Your task to perform on an android device: Go to internet settings Image 0: 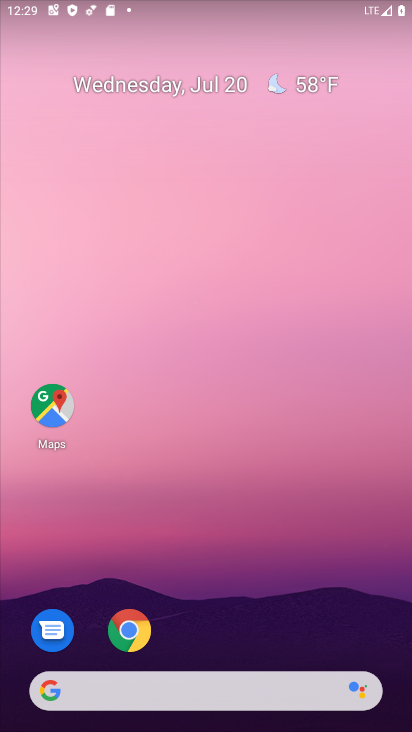
Step 0: drag from (202, 652) to (207, 303)
Your task to perform on an android device: Go to internet settings Image 1: 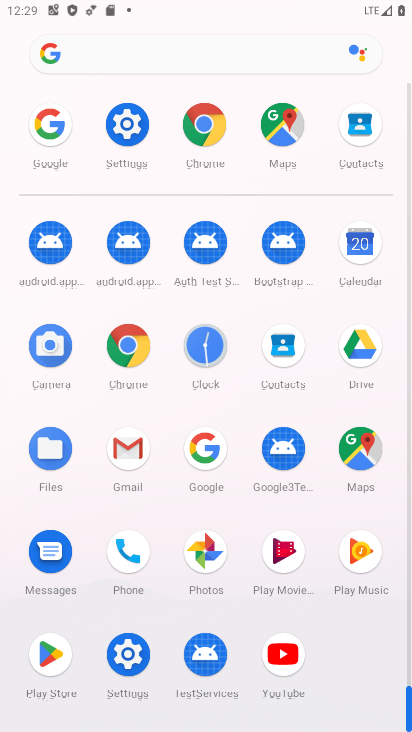
Step 1: click (151, 149)
Your task to perform on an android device: Go to internet settings Image 2: 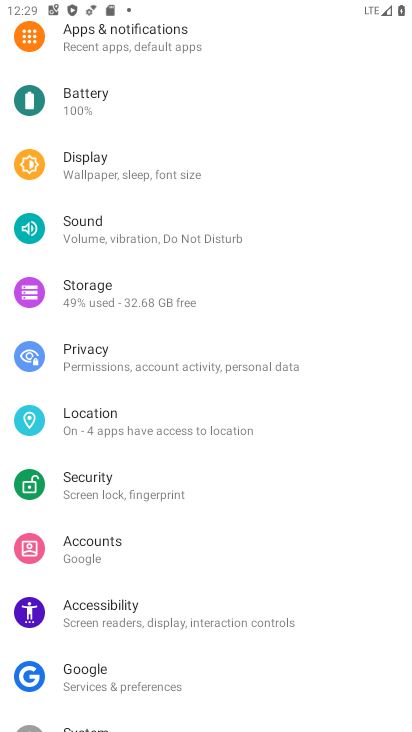
Step 2: drag from (236, 236) to (208, 464)
Your task to perform on an android device: Go to internet settings Image 3: 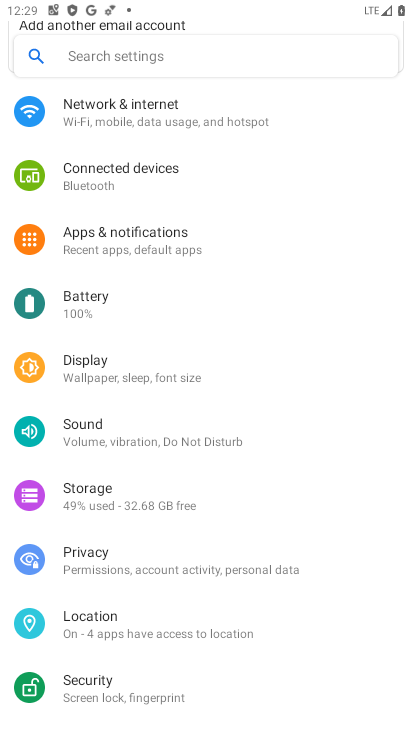
Step 3: drag from (237, 232) to (216, 475)
Your task to perform on an android device: Go to internet settings Image 4: 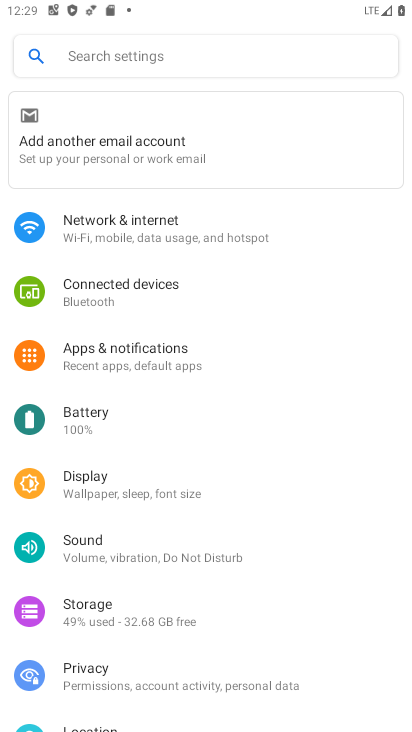
Step 4: click (202, 241)
Your task to perform on an android device: Go to internet settings Image 5: 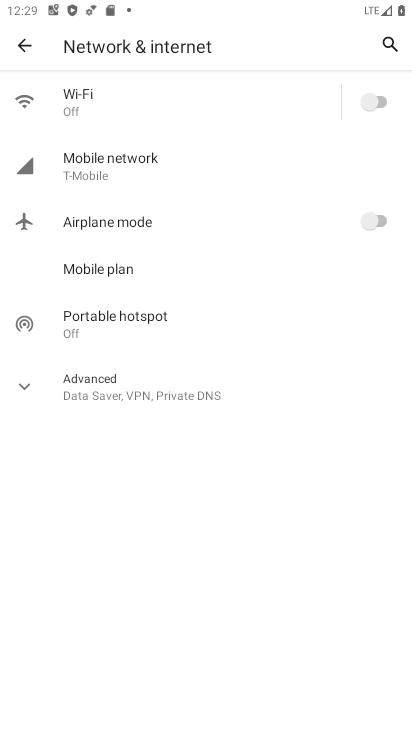
Step 5: click (173, 178)
Your task to perform on an android device: Go to internet settings Image 6: 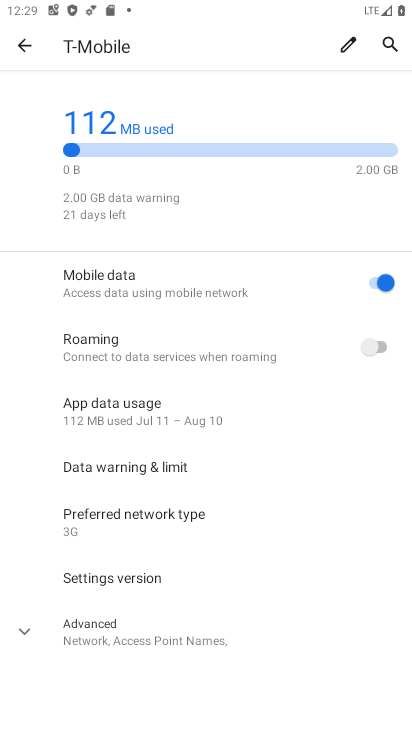
Step 6: task complete